Your task to perform on an android device: manage bookmarks in the chrome app Image 0: 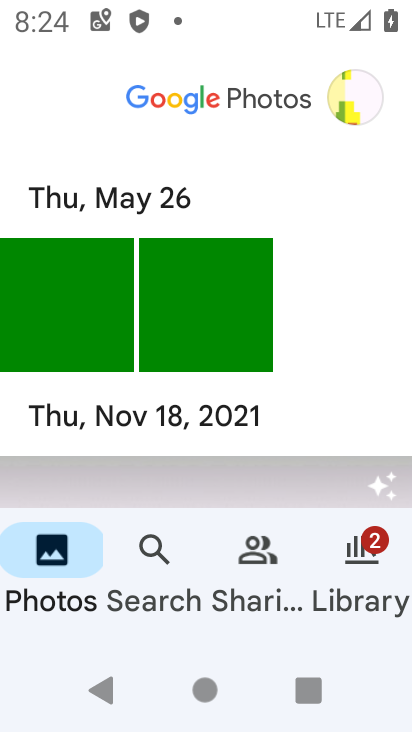
Step 0: press home button
Your task to perform on an android device: manage bookmarks in the chrome app Image 1: 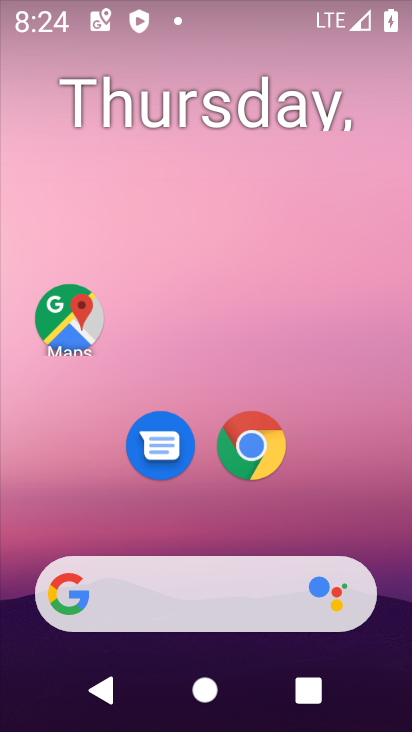
Step 1: drag from (389, 610) to (310, 102)
Your task to perform on an android device: manage bookmarks in the chrome app Image 2: 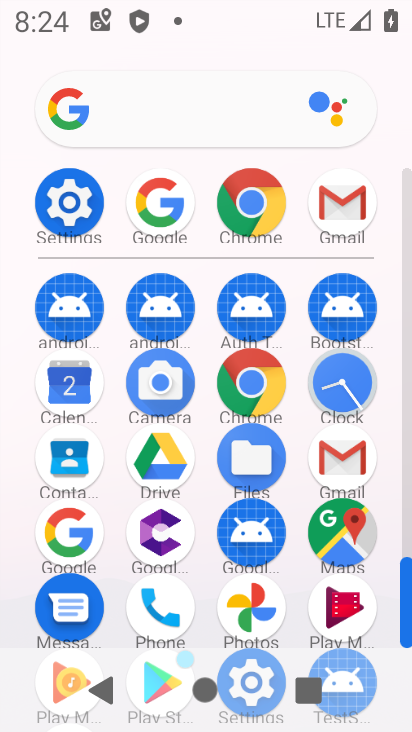
Step 2: click (271, 220)
Your task to perform on an android device: manage bookmarks in the chrome app Image 3: 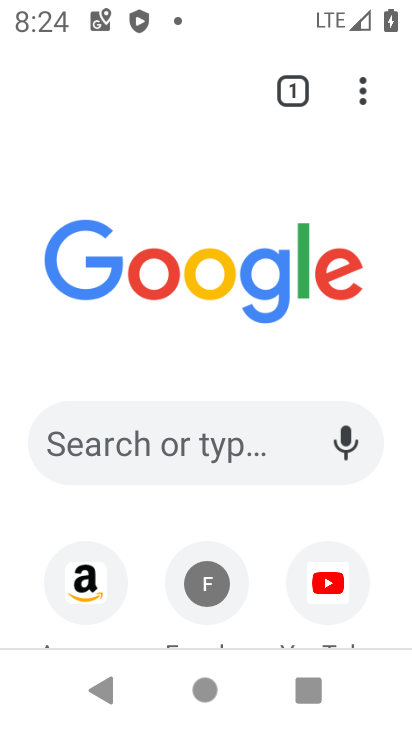
Step 3: click (360, 83)
Your task to perform on an android device: manage bookmarks in the chrome app Image 4: 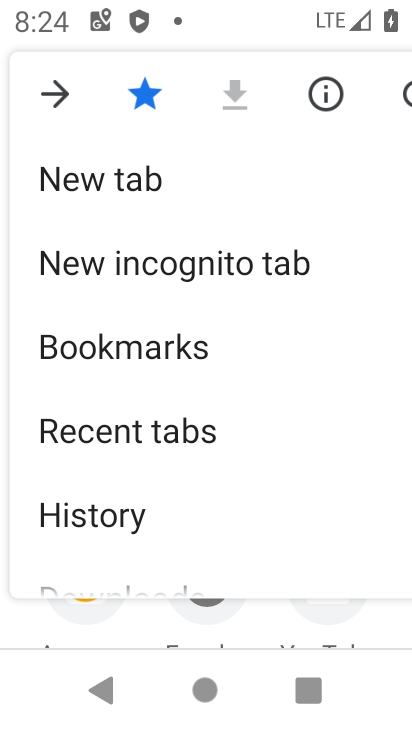
Step 4: click (196, 348)
Your task to perform on an android device: manage bookmarks in the chrome app Image 5: 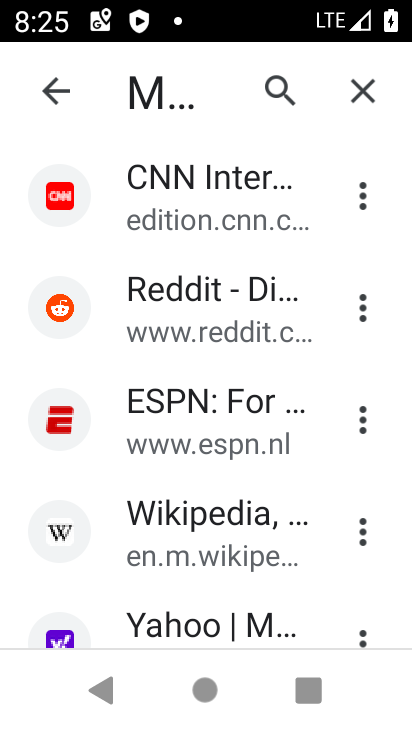
Step 5: task complete